Your task to perform on an android device: check data usage Image 0: 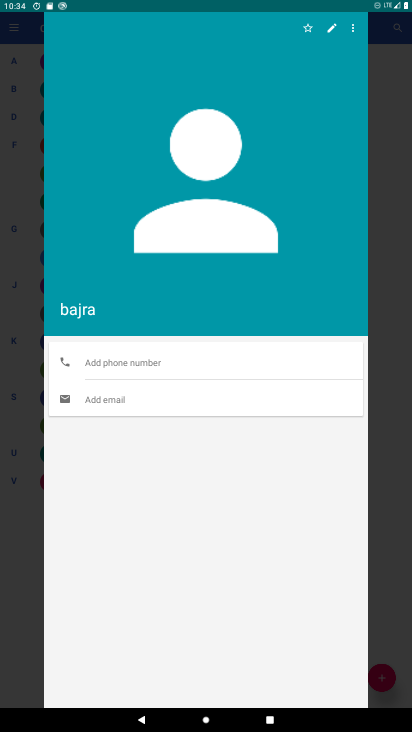
Step 0: press home button
Your task to perform on an android device: check data usage Image 1: 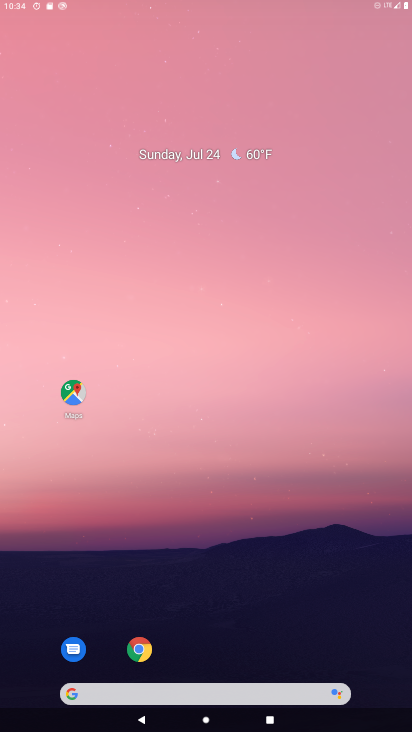
Step 1: drag from (349, 595) to (271, 123)
Your task to perform on an android device: check data usage Image 2: 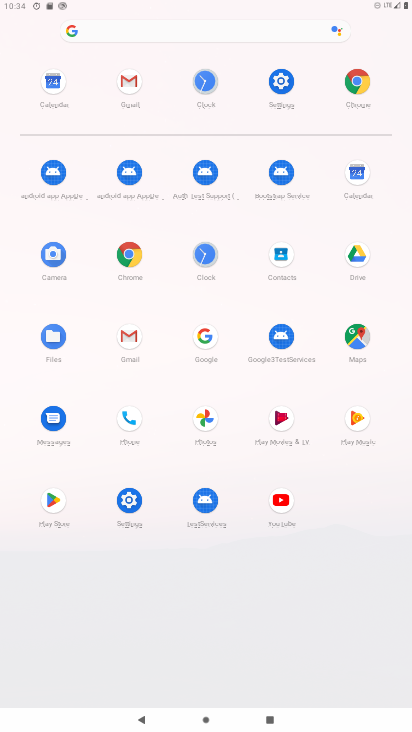
Step 2: click (282, 80)
Your task to perform on an android device: check data usage Image 3: 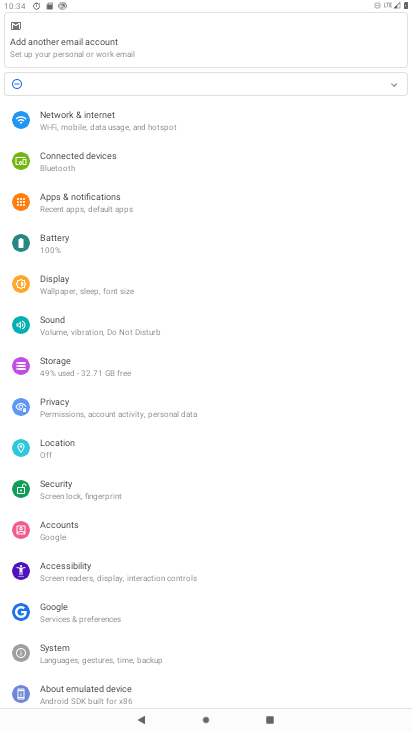
Step 3: click (94, 133)
Your task to perform on an android device: check data usage Image 4: 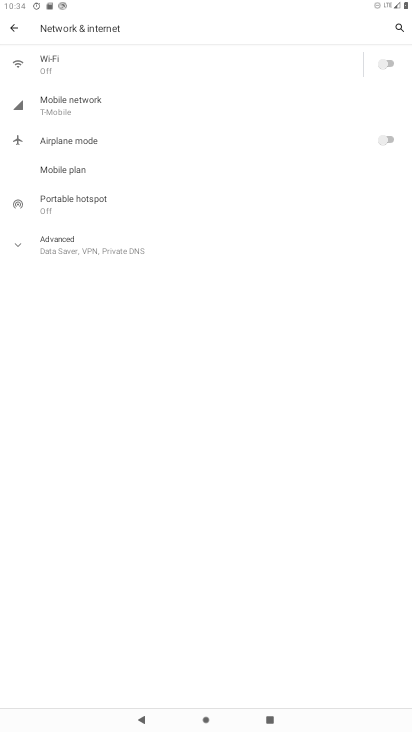
Step 4: click (92, 106)
Your task to perform on an android device: check data usage Image 5: 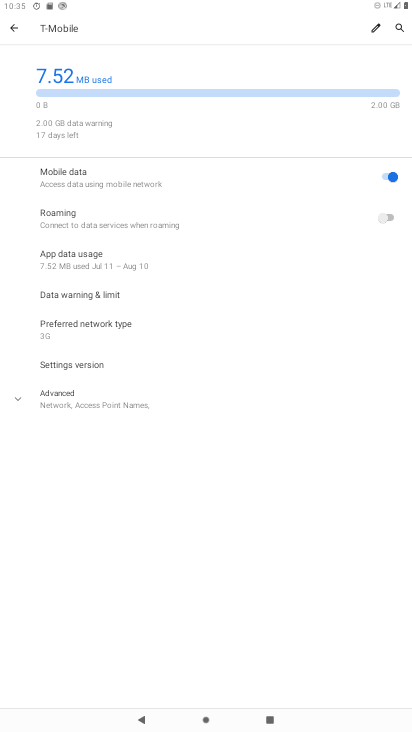
Step 5: press home button
Your task to perform on an android device: check data usage Image 6: 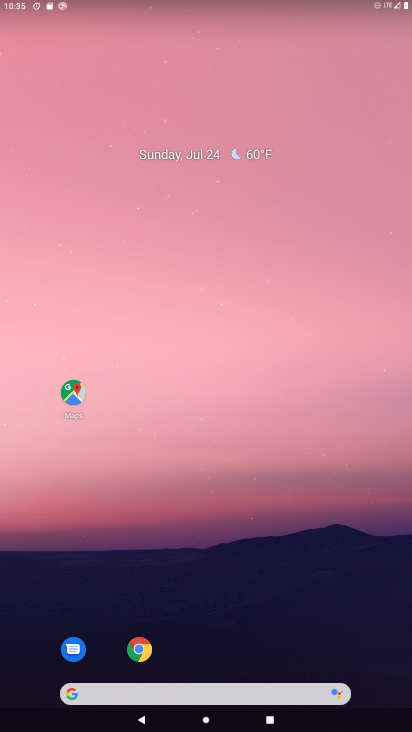
Step 6: drag from (271, 613) to (223, 19)
Your task to perform on an android device: check data usage Image 7: 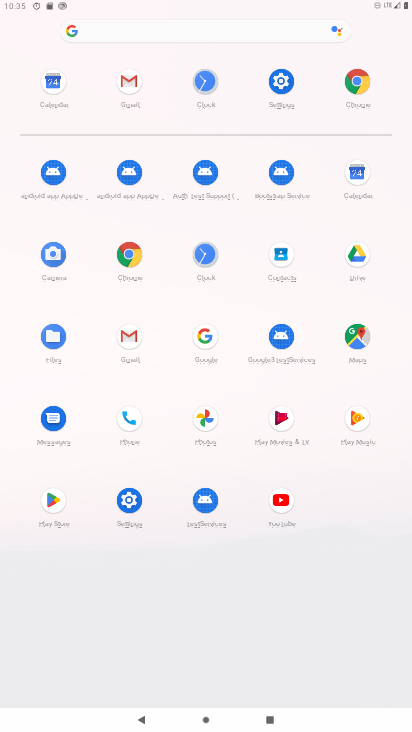
Step 7: click (277, 74)
Your task to perform on an android device: check data usage Image 8: 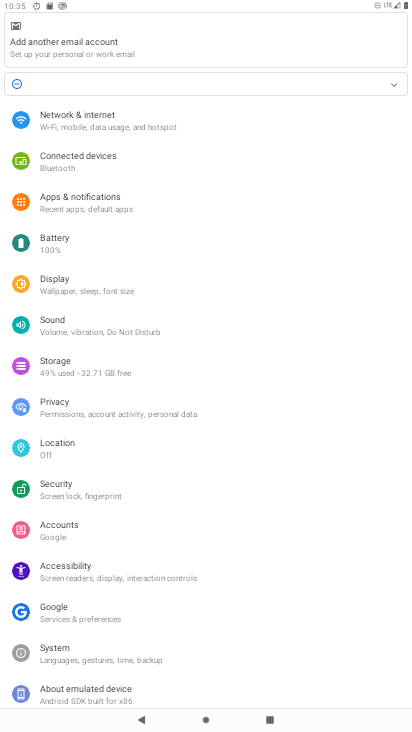
Step 8: click (124, 128)
Your task to perform on an android device: check data usage Image 9: 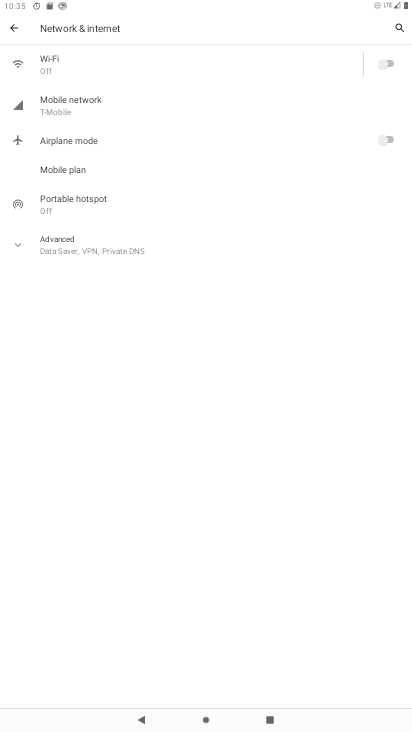
Step 9: click (85, 104)
Your task to perform on an android device: check data usage Image 10: 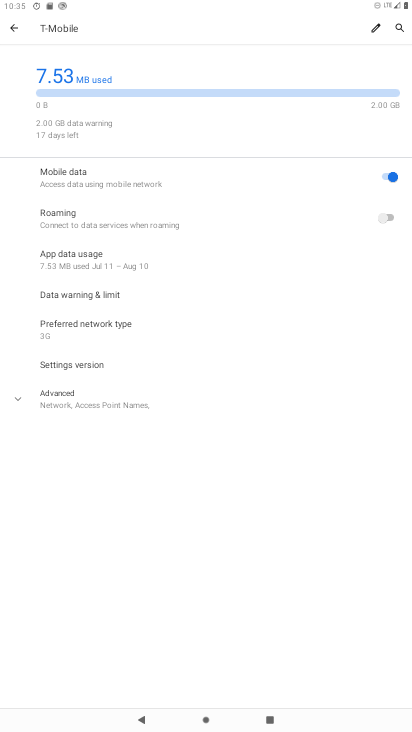
Step 10: task complete